Your task to perform on an android device: open the mobile data screen to see how much data has been used Image 0: 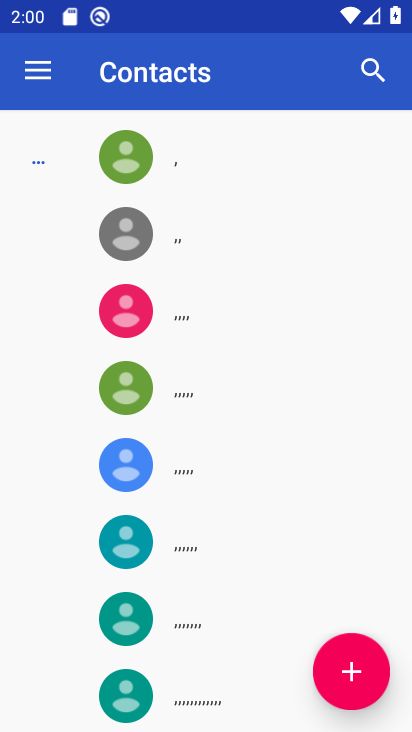
Step 0: press home button
Your task to perform on an android device: open the mobile data screen to see how much data has been used Image 1: 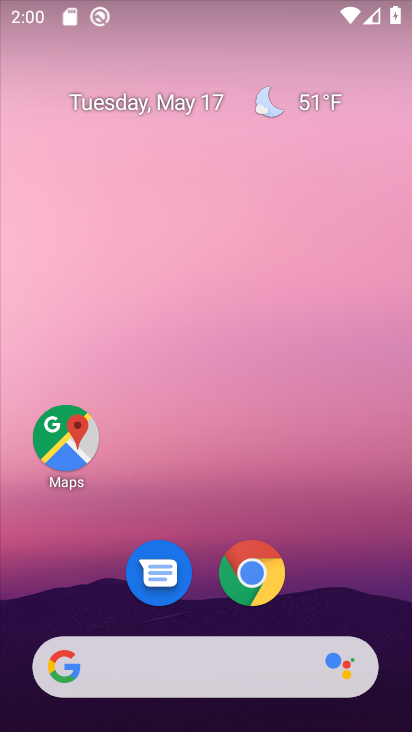
Step 1: drag from (211, 611) to (205, 13)
Your task to perform on an android device: open the mobile data screen to see how much data has been used Image 2: 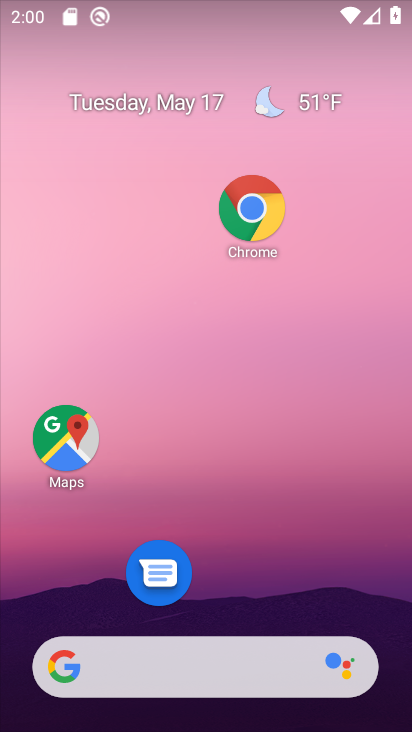
Step 2: drag from (250, 620) to (255, 93)
Your task to perform on an android device: open the mobile data screen to see how much data has been used Image 3: 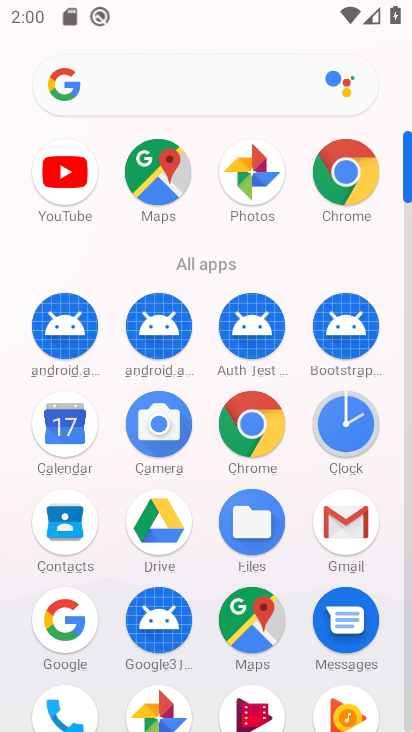
Step 3: drag from (204, 555) to (180, 106)
Your task to perform on an android device: open the mobile data screen to see how much data has been used Image 4: 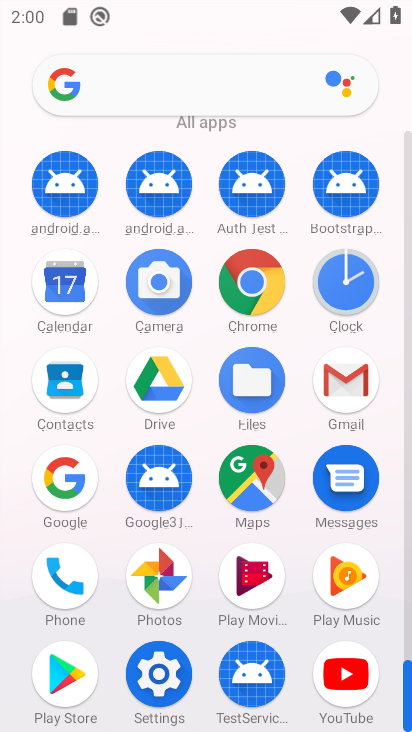
Step 4: click (143, 665)
Your task to perform on an android device: open the mobile data screen to see how much data has been used Image 5: 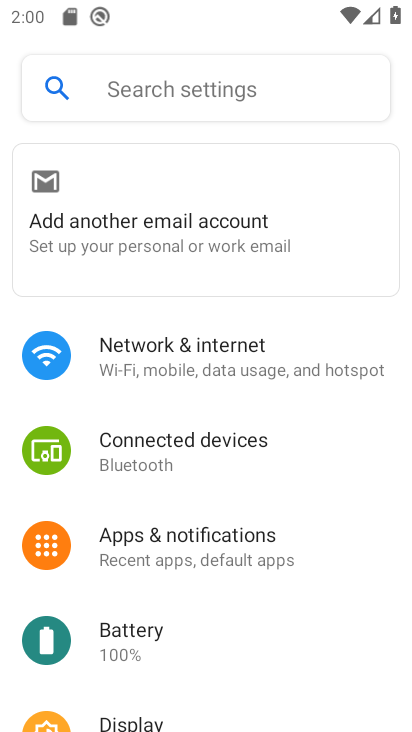
Step 5: click (220, 336)
Your task to perform on an android device: open the mobile data screen to see how much data has been used Image 6: 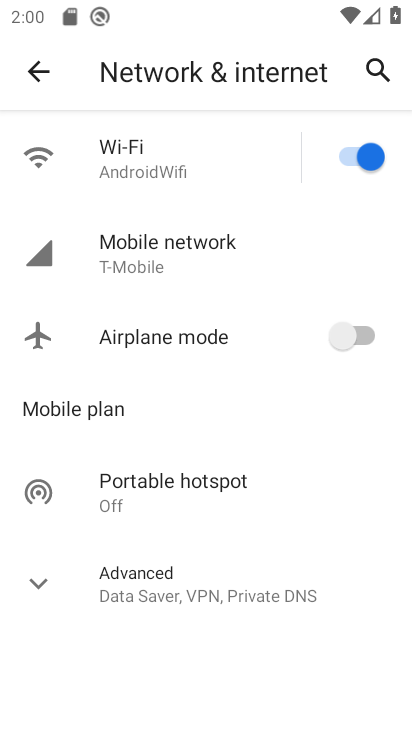
Step 6: click (187, 231)
Your task to perform on an android device: open the mobile data screen to see how much data has been used Image 7: 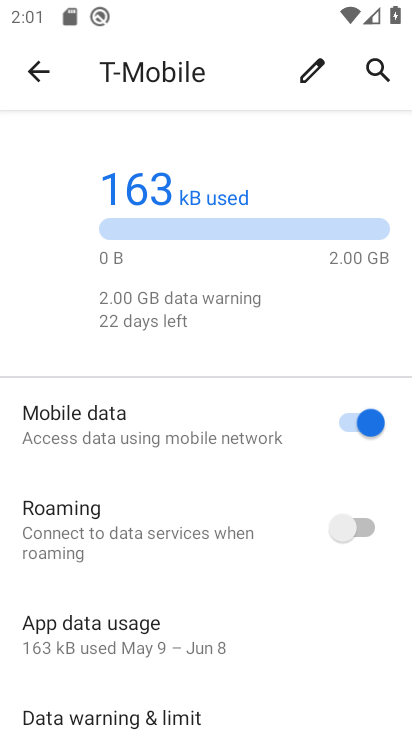
Step 7: task complete